Your task to perform on an android device: turn off picture-in-picture Image 0: 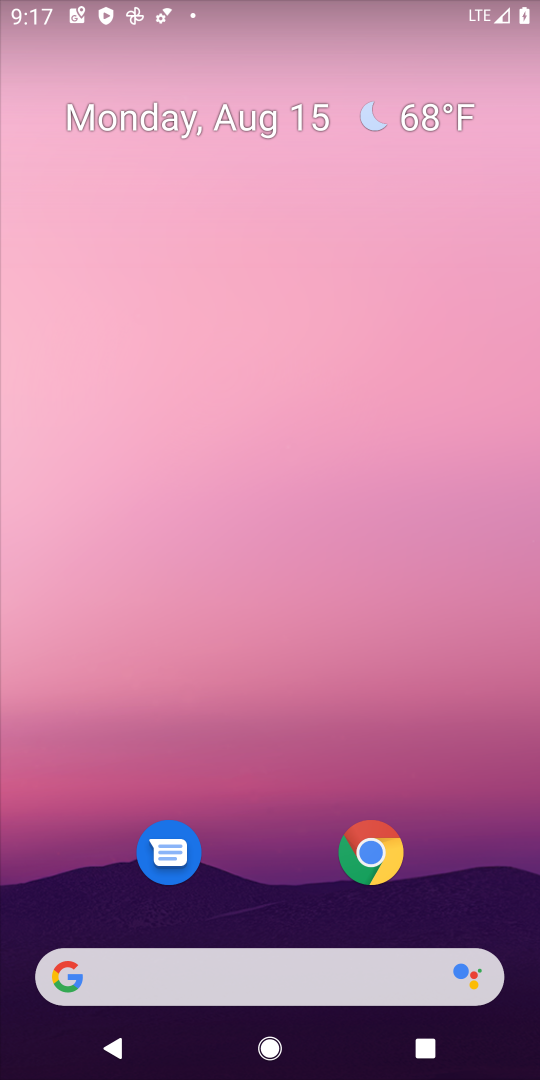
Step 0: click (367, 856)
Your task to perform on an android device: turn off picture-in-picture Image 1: 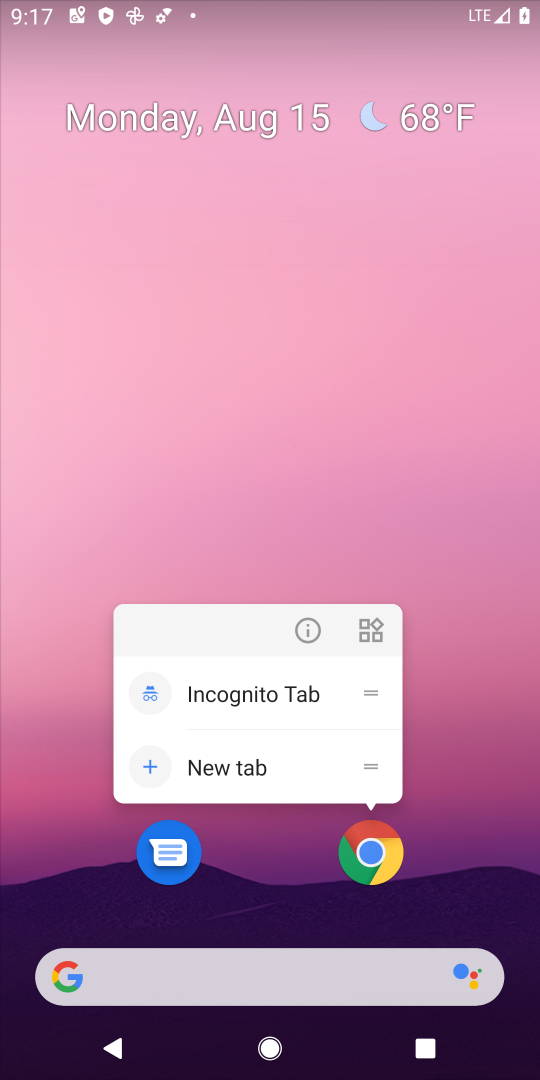
Step 1: click (310, 626)
Your task to perform on an android device: turn off picture-in-picture Image 2: 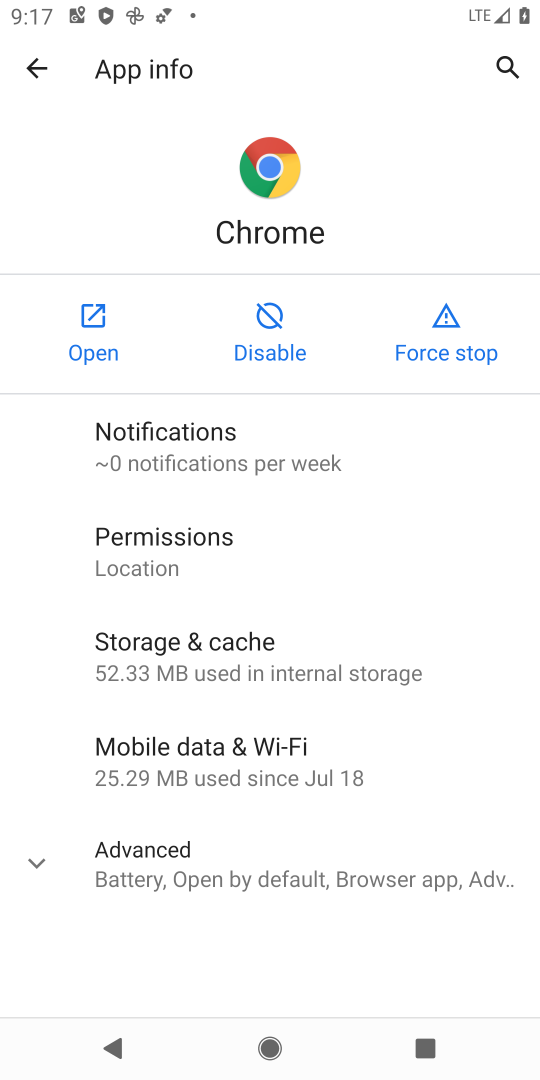
Step 2: click (196, 876)
Your task to perform on an android device: turn off picture-in-picture Image 3: 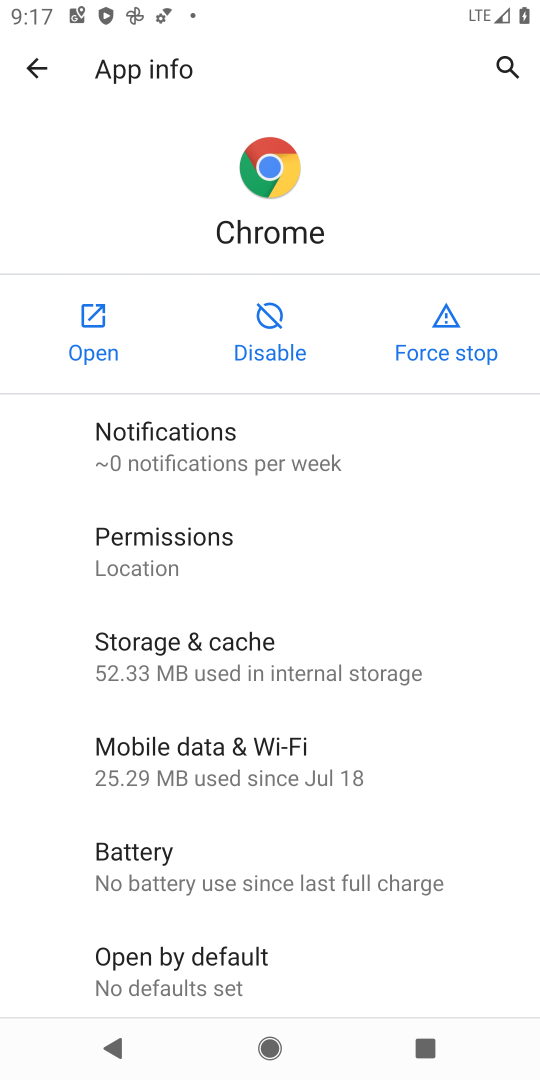
Step 3: drag from (212, 853) to (233, 637)
Your task to perform on an android device: turn off picture-in-picture Image 4: 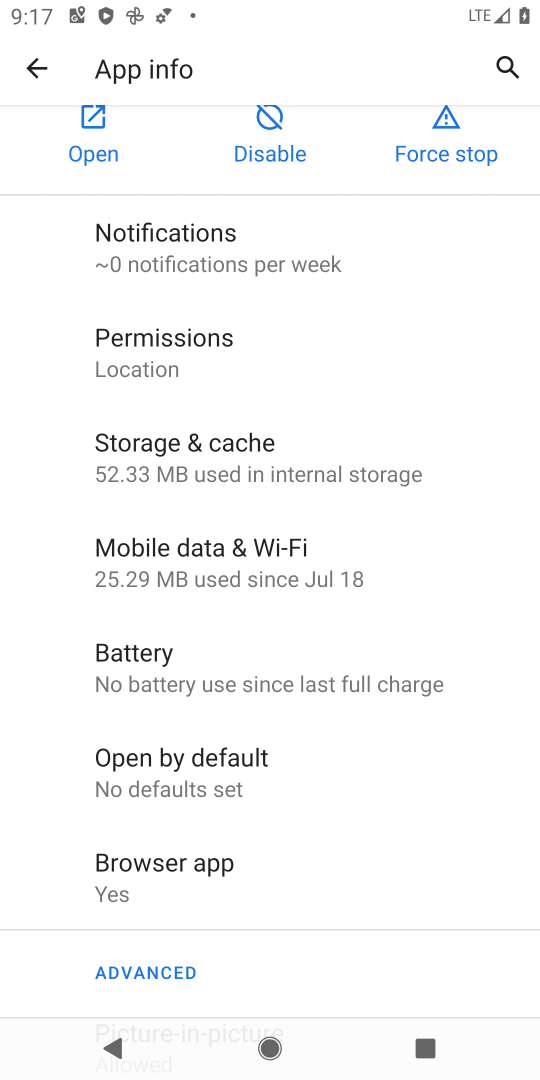
Step 4: drag from (168, 818) to (234, 673)
Your task to perform on an android device: turn off picture-in-picture Image 5: 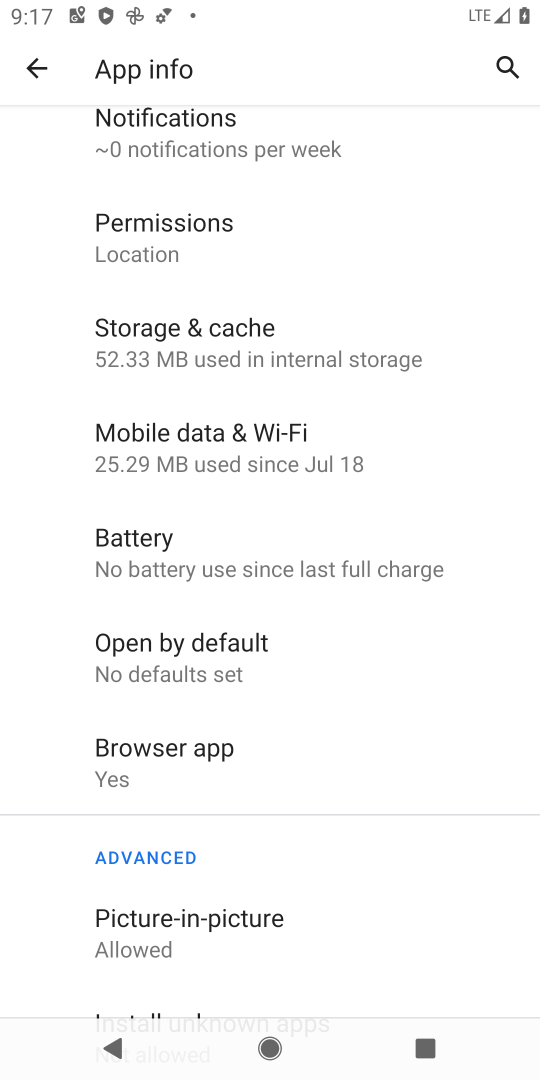
Step 5: click (171, 913)
Your task to perform on an android device: turn off picture-in-picture Image 6: 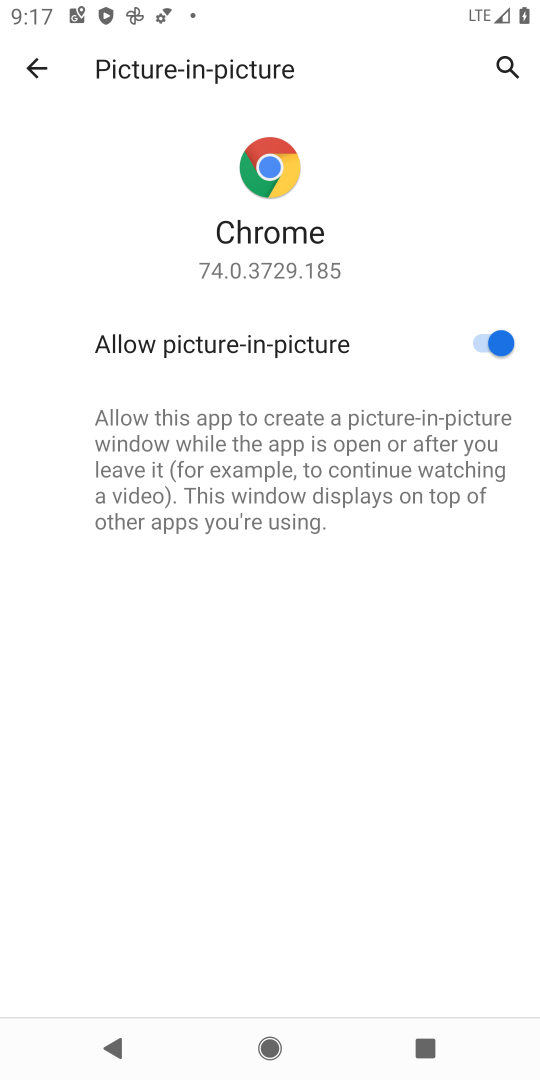
Step 6: click (486, 337)
Your task to perform on an android device: turn off picture-in-picture Image 7: 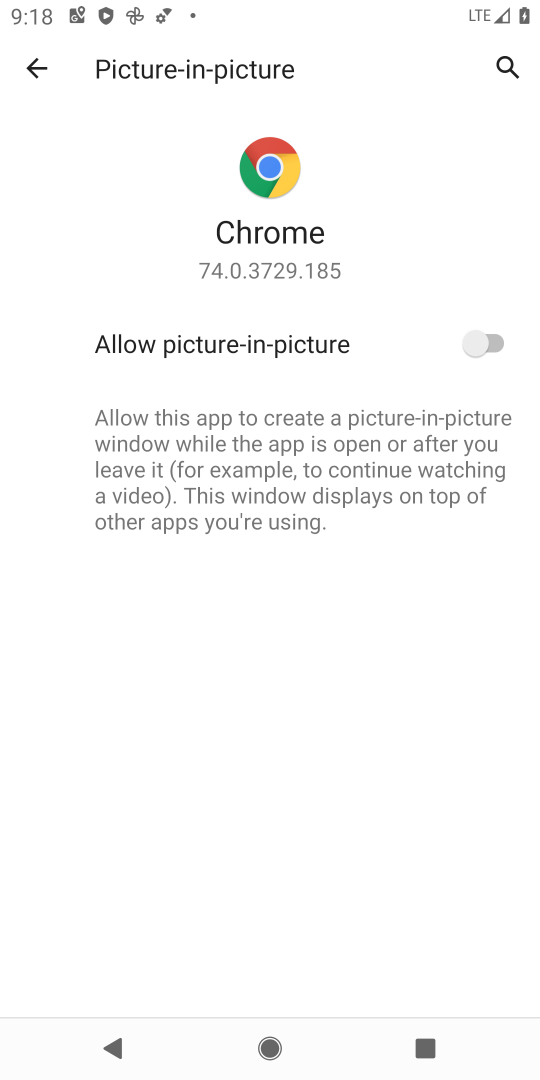
Step 7: task complete